Your task to perform on an android device: Open eBay Image 0: 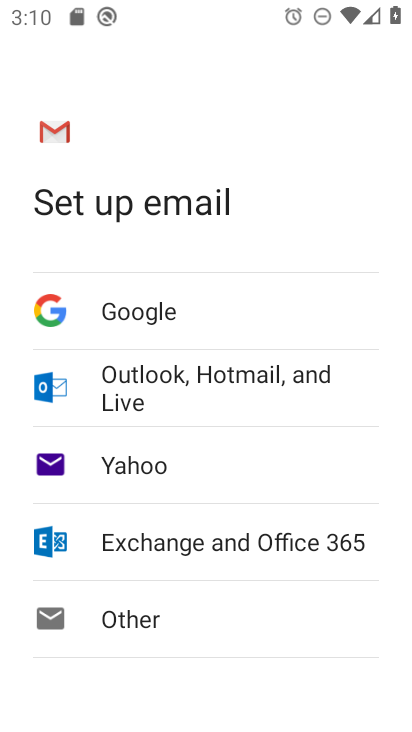
Step 0: press home button
Your task to perform on an android device: Open eBay Image 1: 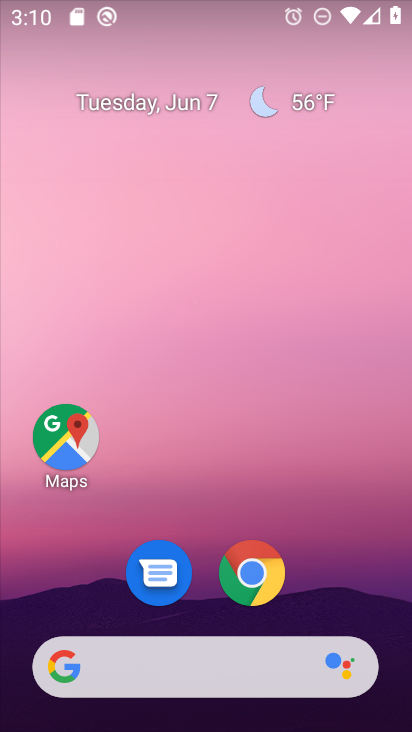
Step 1: click (256, 579)
Your task to perform on an android device: Open eBay Image 2: 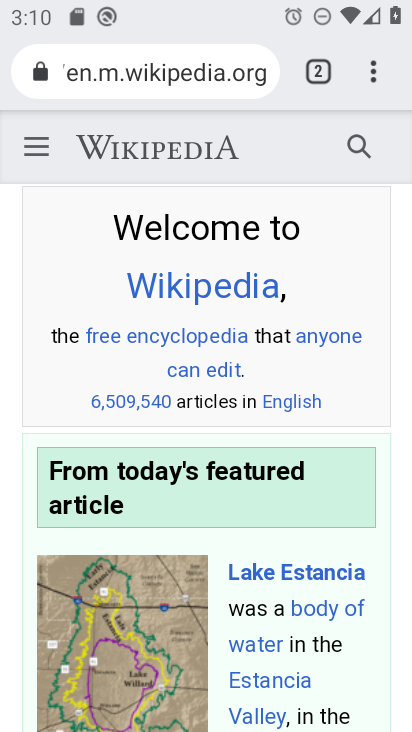
Step 2: click (137, 65)
Your task to perform on an android device: Open eBay Image 3: 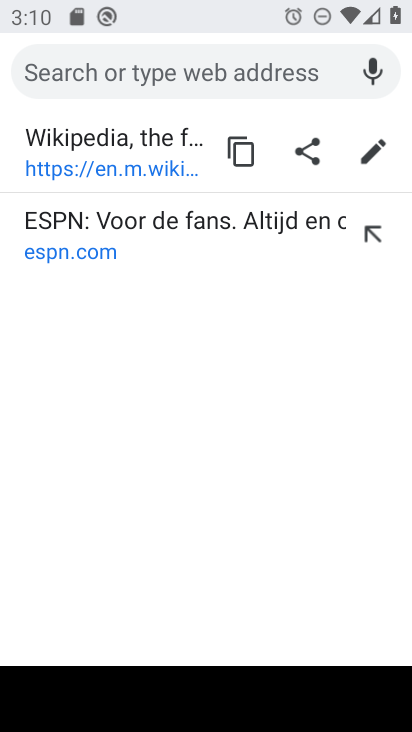
Step 3: type "ebay"
Your task to perform on an android device: Open eBay Image 4: 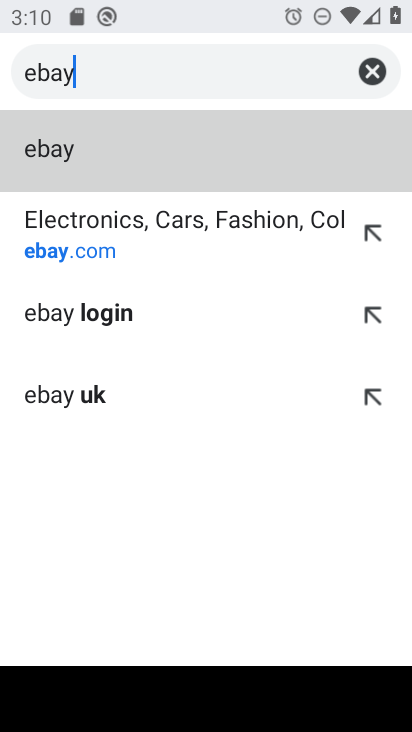
Step 4: click (135, 221)
Your task to perform on an android device: Open eBay Image 5: 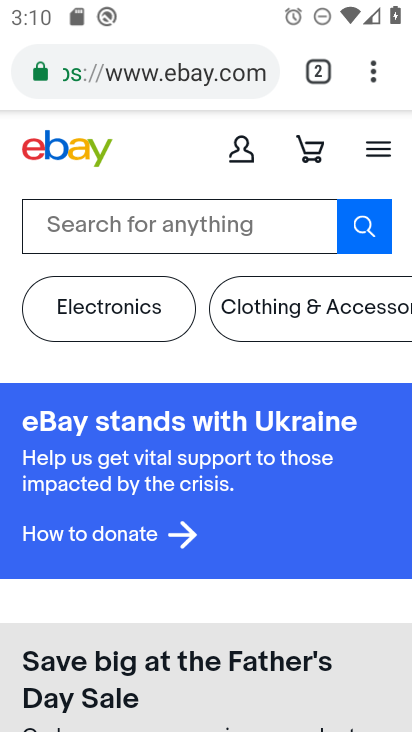
Step 5: task complete